Your task to perform on an android device: Do I have any events today? Image 0: 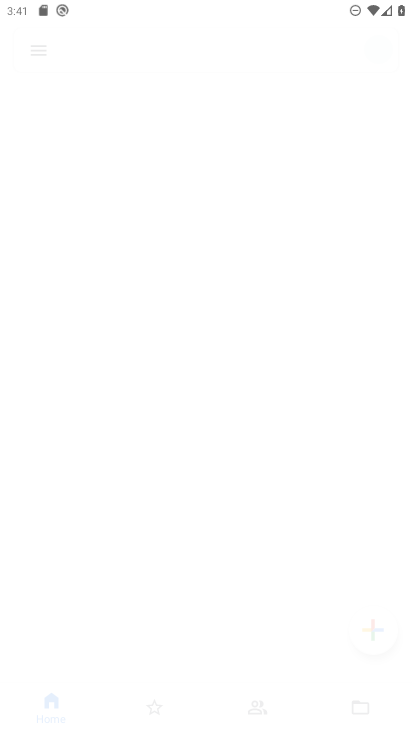
Step 0: drag from (214, 652) to (167, 63)
Your task to perform on an android device: Do I have any events today? Image 1: 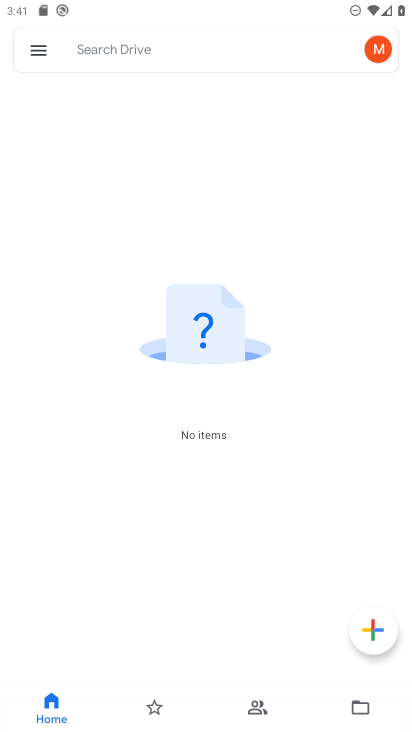
Step 1: press home button
Your task to perform on an android device: Do I have any events today? Image 2: 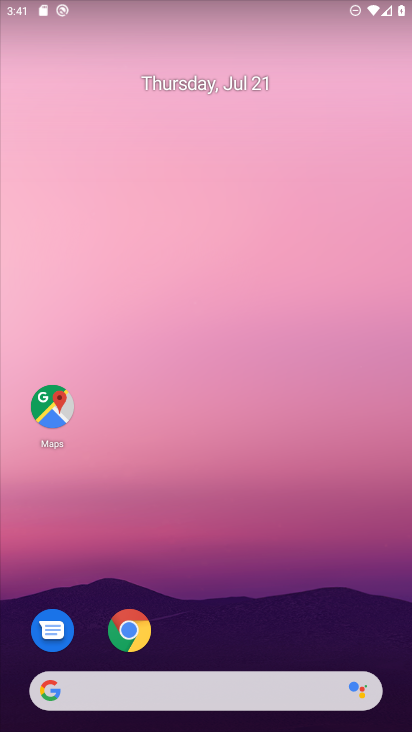
Step 2: drag from (181, 663) to (17, 384)
Your task to perform on an android device: Do I have any events today? Image 3: 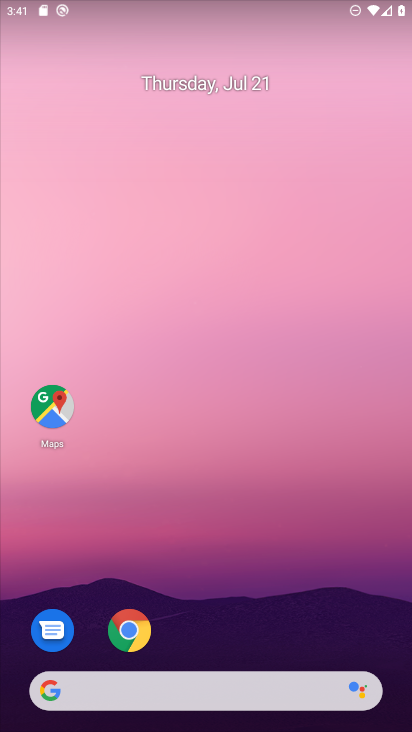
Step 3: drag from (222, 655) to (149, 20)
Your task to perform on an android device: Do I have any events today? Image 4: 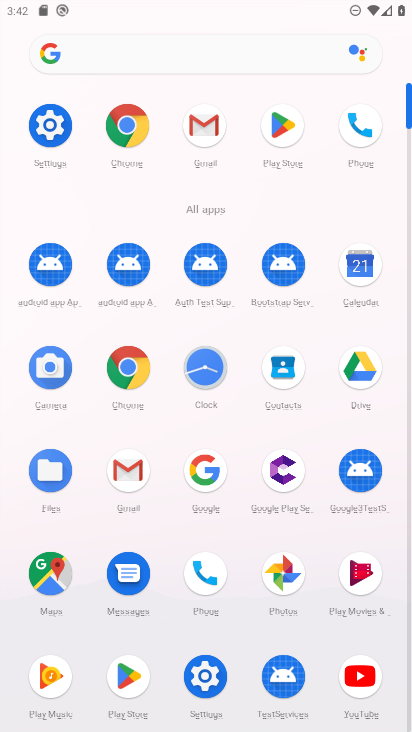
Step 4: click (353, 266)
Your task to perform on an android device: Do I have any events today? Image 5: 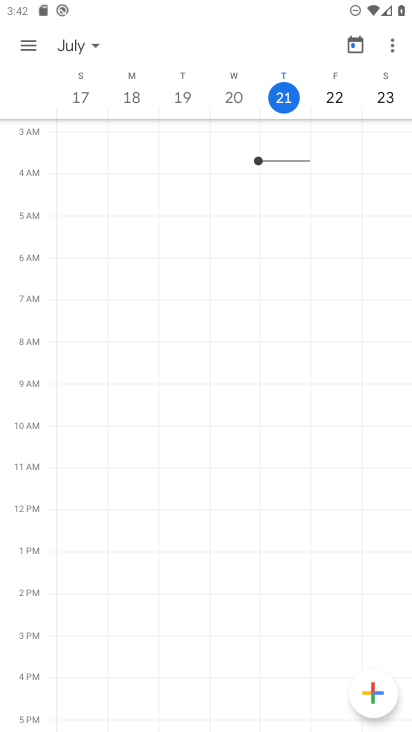
Step 5: click (288, 98)
Your task to perform on an android device: Do I have any events today? Image 6: 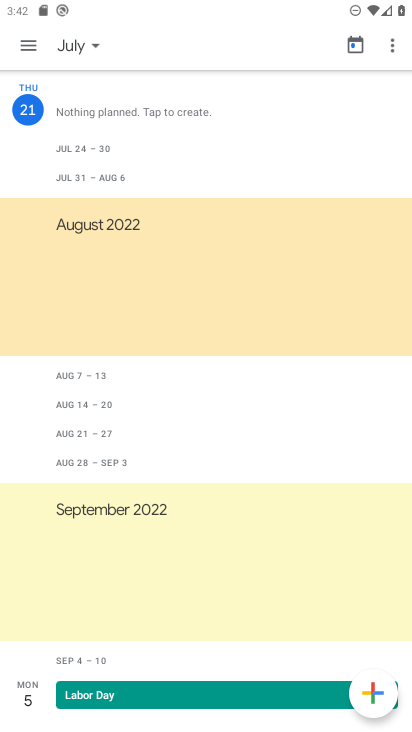
Step 6: task complete